Your task to perform on an android device: turn on wifi Image 0: 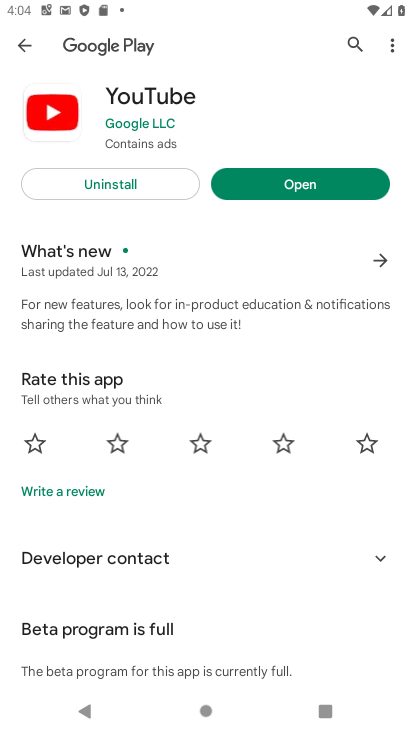
Step 0: press home button
Your task to perform on an android device: turn on wifi Image 1: 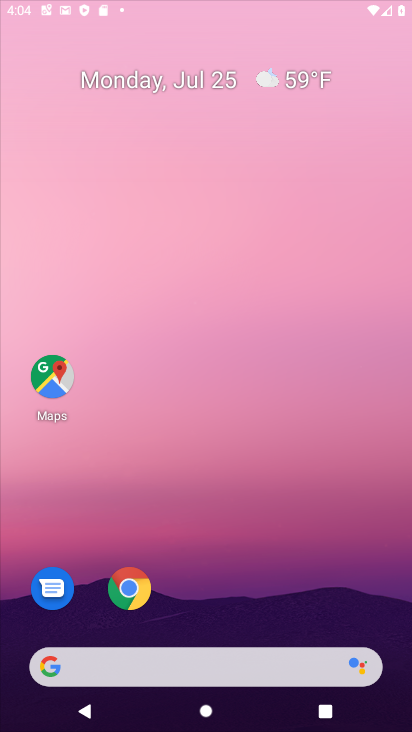
Step 1: task complete